Your task to perform on an android device: all mails in gmail Image 0: 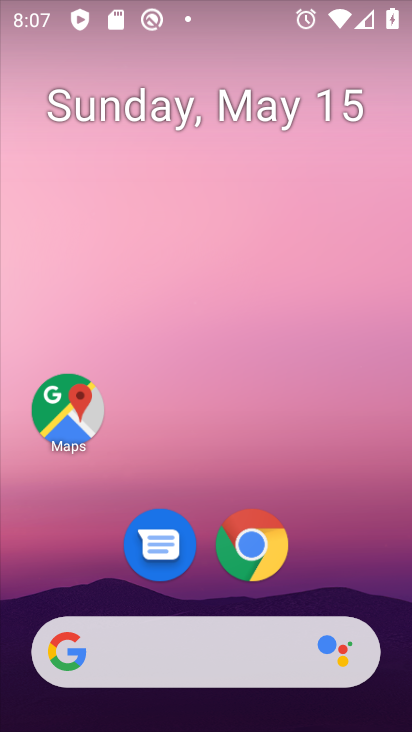
Step 0: drag from (371, 577) to (358, 61)
Your task to perform on an android device: all mails in gmail Image 1: 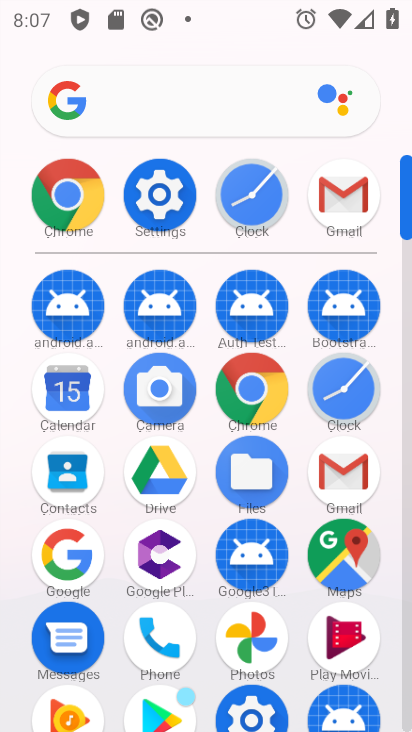
Step 1: click (343, 467)
Your task to perform on an android device: all mails in gmail Image 2: 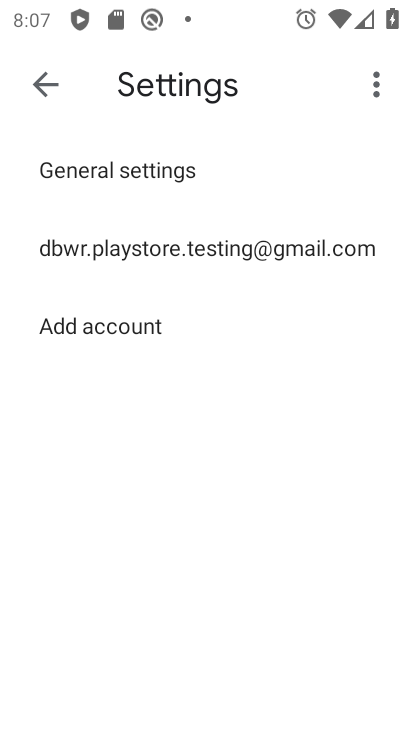
Step 2: click (311, 252)
Your task to perform on an android device: all mails in gmail Image 3: 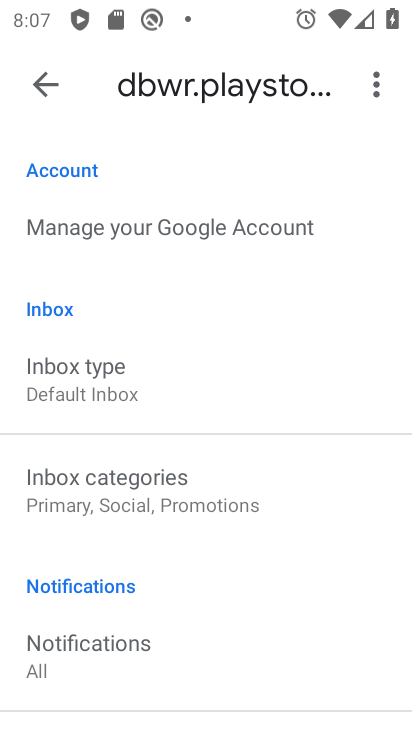
Step 3: drag from (345, 628) to (346, 376)
Your task to perform on an android device: all mails in gmail Image 4: 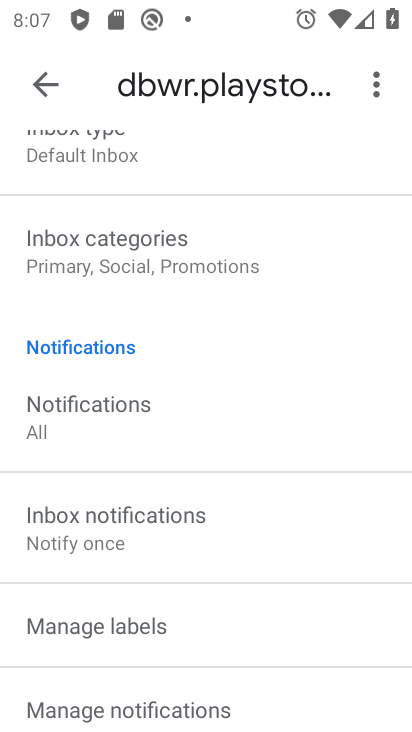
Step 4: drag from (350, 638) to (347, 420)
Your task to perform on an android device: all mails in gmail Image 5: 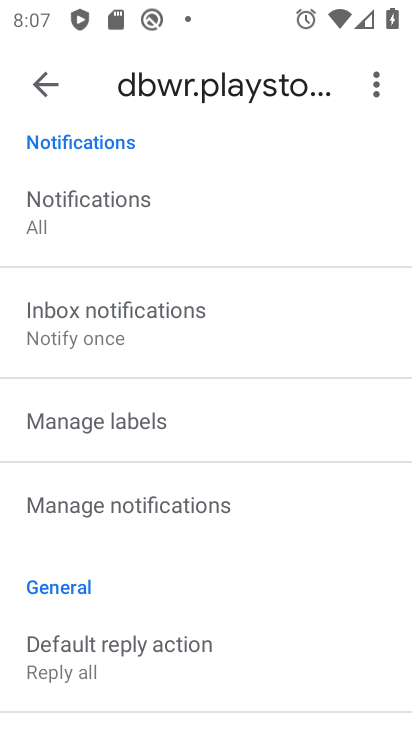
Step 5: drag from (336, 664) to (331, 417)
Your task to perform on an android device: all mails in gmail Image 6: 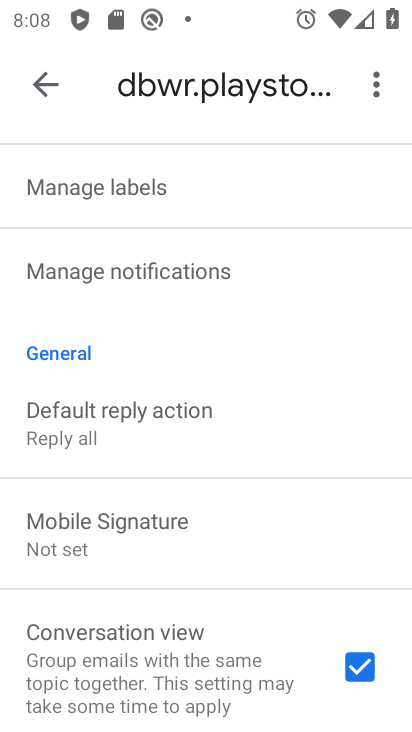
Step 6: drag from (303, 642) to (305, 376)
Your task to perform on an android device: all mails in gmail Image 7: 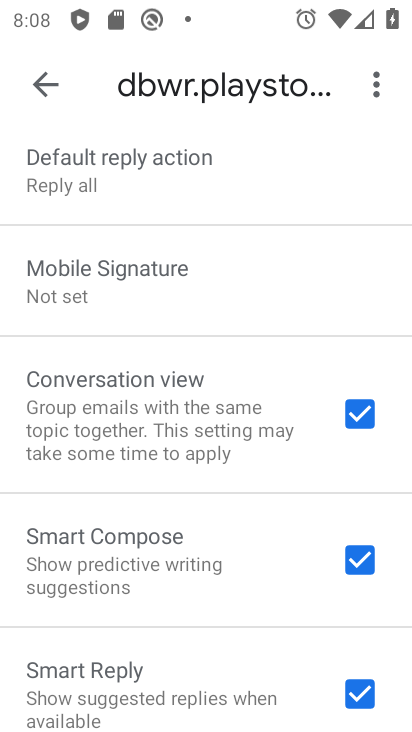
Step 7: drag from (283, 663) to (285, 411)
Your task to perform on an android device: all mails in gmail Image 8: 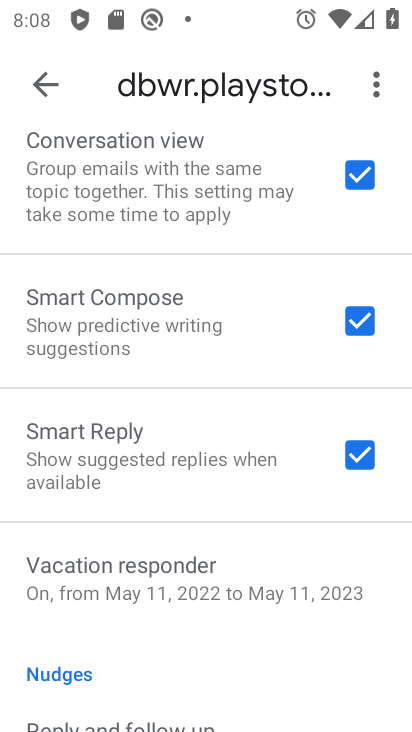
Step 8: drag from (285, 681) to (295, 427)
Your task to perform on an android device: all mails in gmail Image 9: 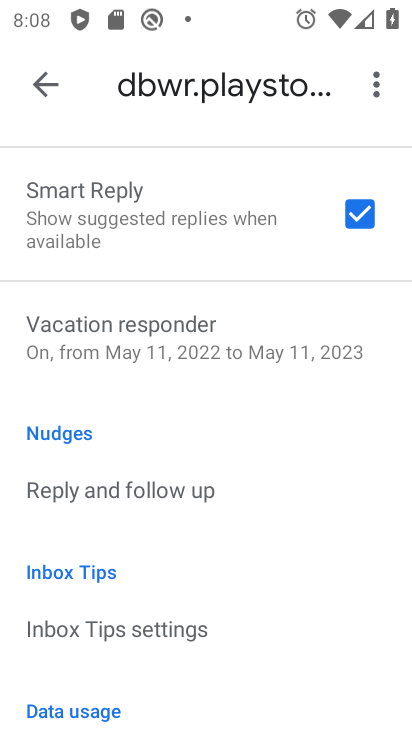
Step 9: drag from (299, 678) to (298, 445)
Your task to perform on an android device: all mails in gmail Image 10: 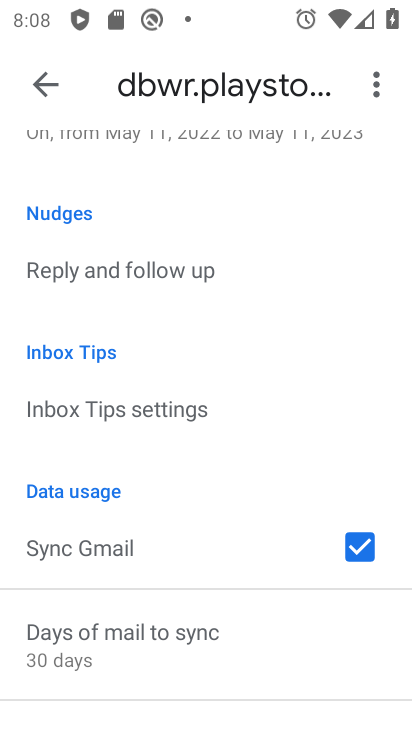
Step 10: drag from (271, 246) to (246, 496)
Your task to perform on an android device: all mails in gmail Image 11: 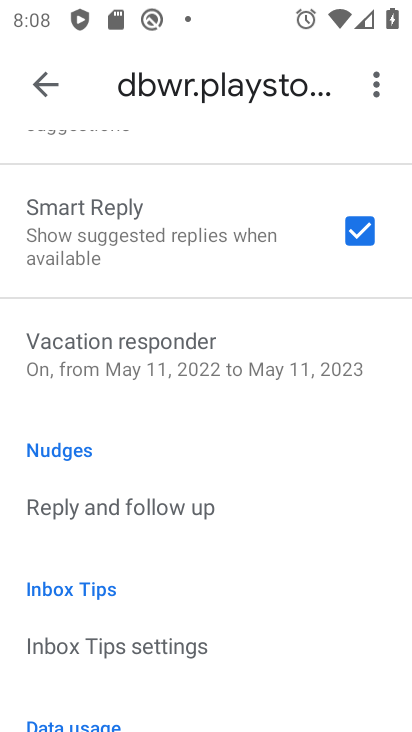
Step 11: drag from (290, 208) to (294, 478)
Your task to perform on an android device: all mails in gmail Image 12: 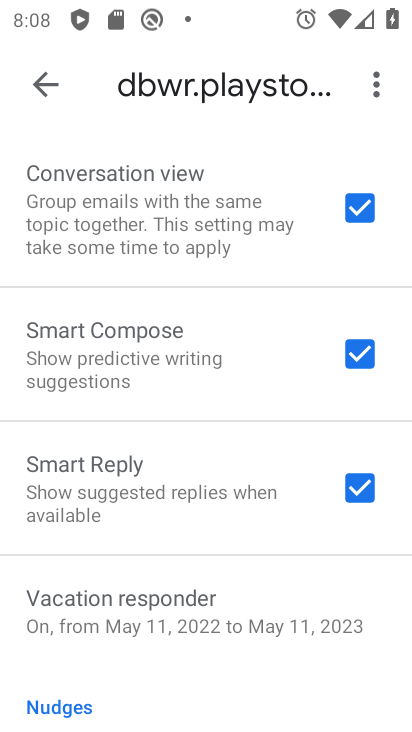
Step 12: drag from (309, 177) to (299, 418)
Your task to perform on an android device: all mails in gmail Image 13: 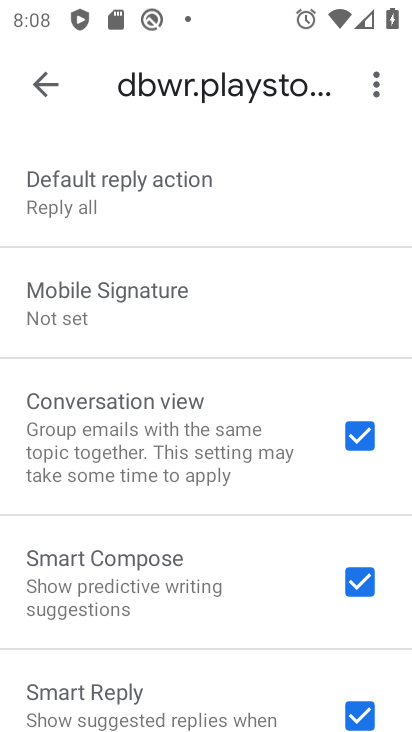
Step 13: drag from (284, 185) to (282, 452)
Your task to perform on an android device: all mails in gmail Image 14: 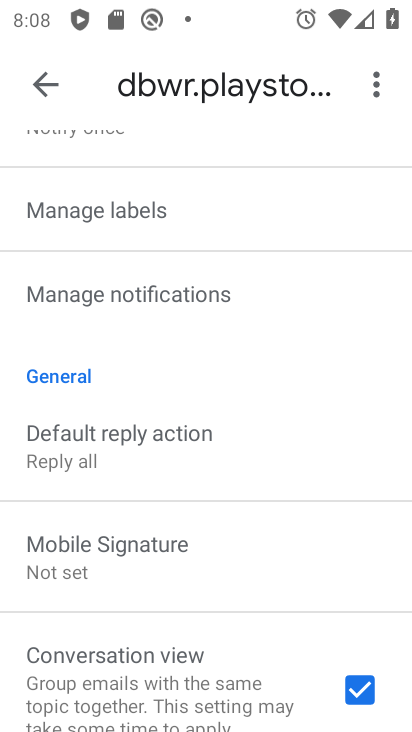
Step 14: drag from (292, 170) to (287, 415)
Your task to perform on an android device: all mails in gmail Image 15: 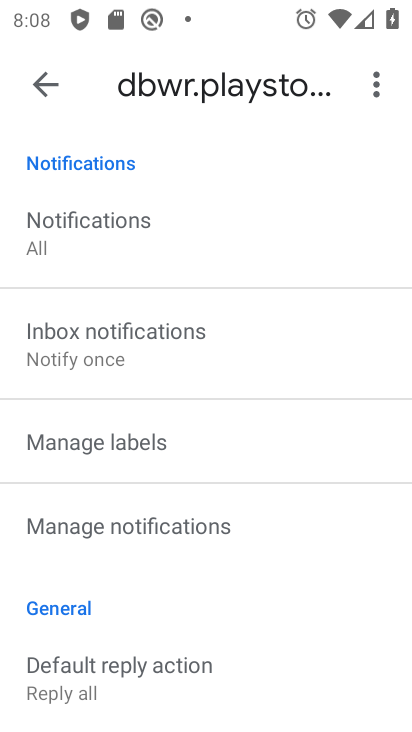
Step 15: drag from (284, 157) to (299, 403)
Your task to perform on an android device: all mails in gmail Image 16: 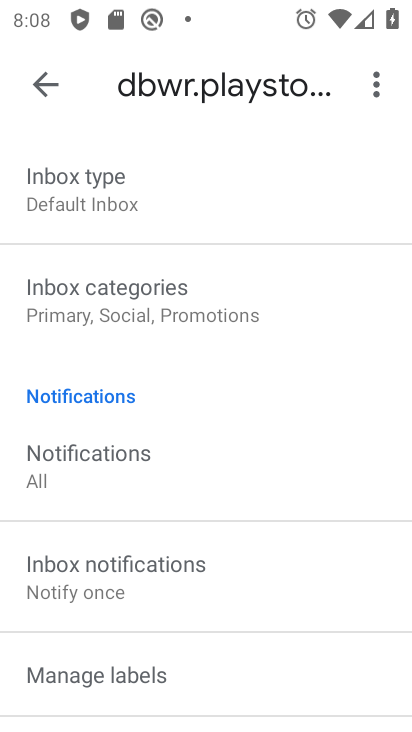
Step 16: drag from (328, 201) to (313, 481)
Your task to perform on an android device: all mails in gmail Image 17: 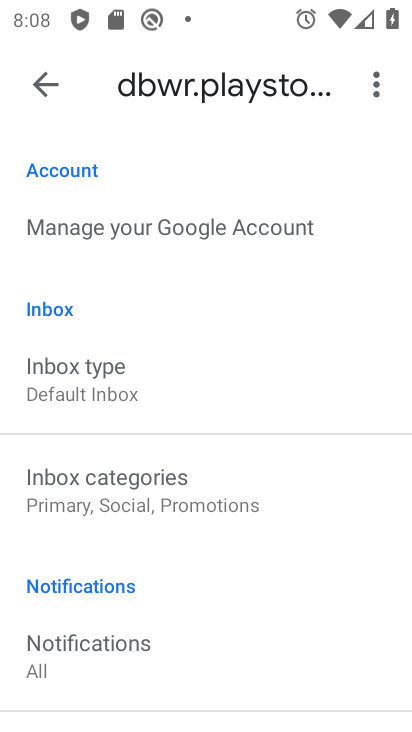
Step 17: click (131, 486)
Your task to perform on an android device: all mails in gmail Image 18: 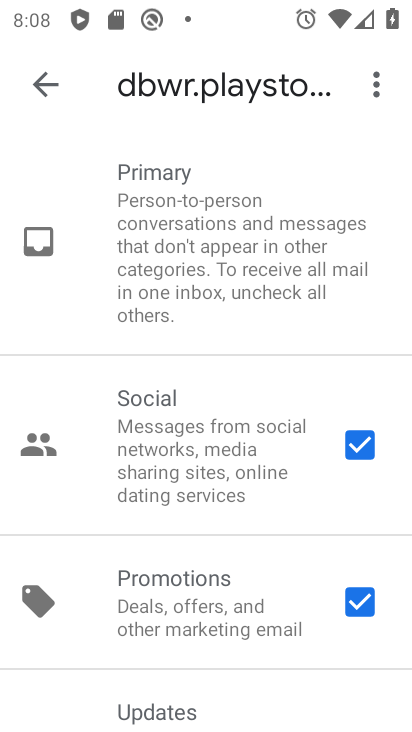
Step 18: click (369, 441)
Your task to perform on an android device: all mails in gmail Image 19: 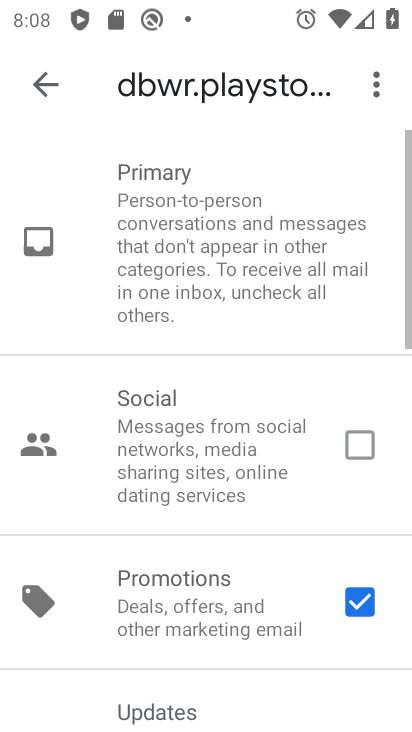
Step 19: click (337, 603)
Your task to perform on an android device: all mails in gmail Image 20: 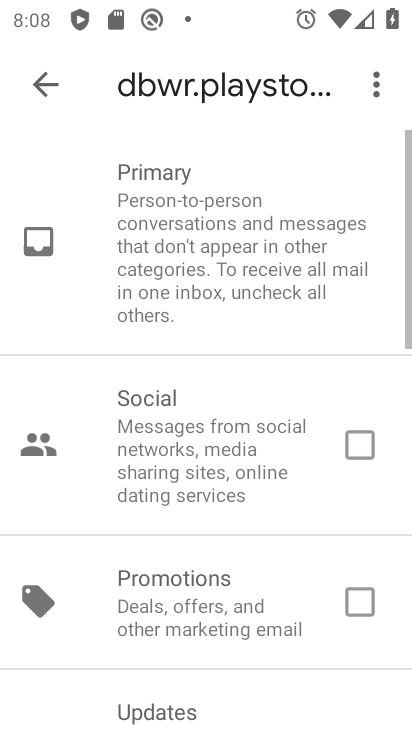
Step 20: task complete